Your task to perform on an android device: Go to privacy settings Image 0: 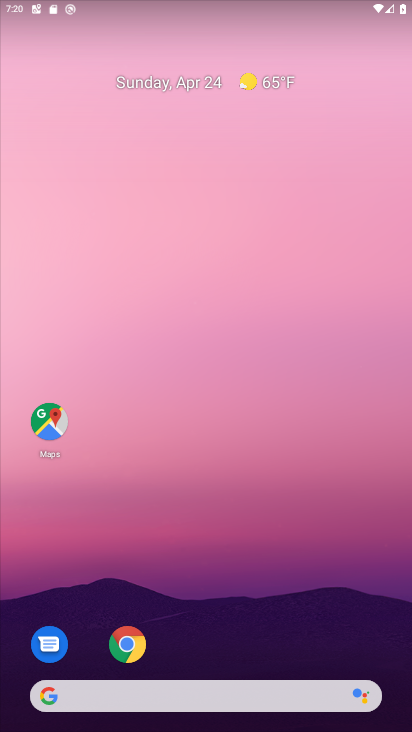
Step 0: drag from (211, 661) to (168, 56)
Your task to perform on an android device: Go to privacy settings Image 1: 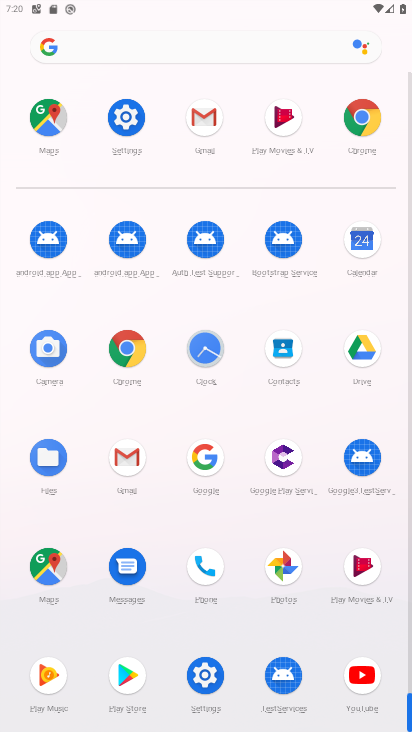
Step 1: click (123, 106)
Your task to perform on an android device: Go to privacy settings Image 2: 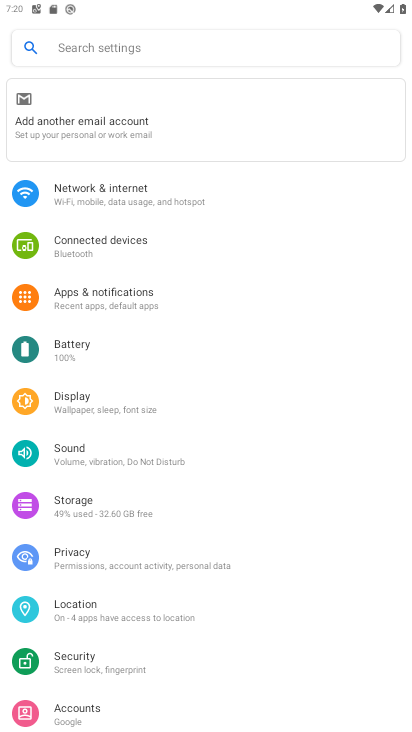
Step 2: click (99, 549)
Your task to perform on an android device: Go to privacy settings Image 3: 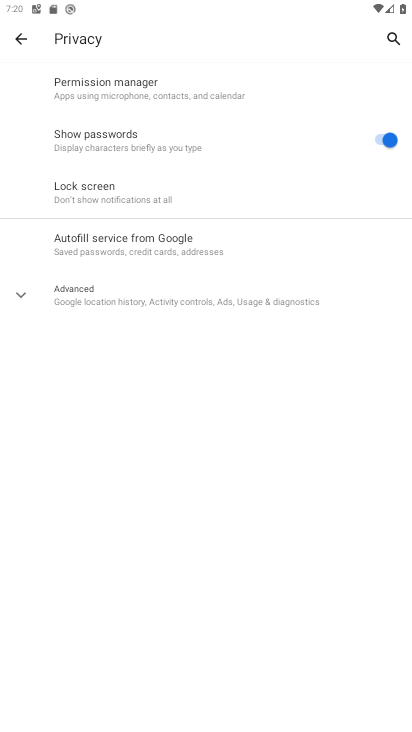
Step 3: click (23, 290)
Your task to perform on an android device: Go to privacy settings Image 4: 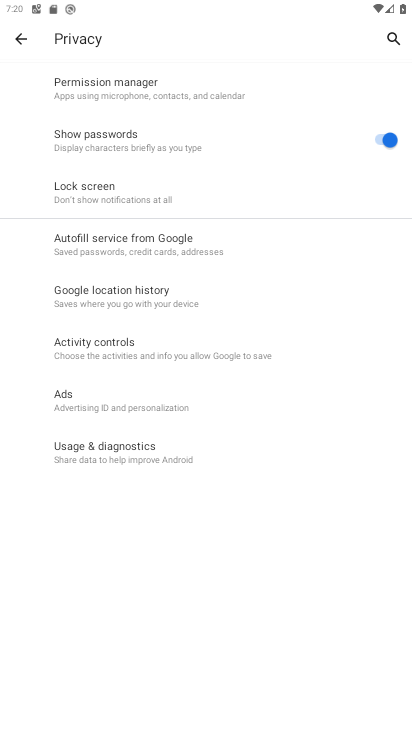
Step 4: task complete